Your task to perform on an android device: Search for Mexican restaurants on Maps Image 0: 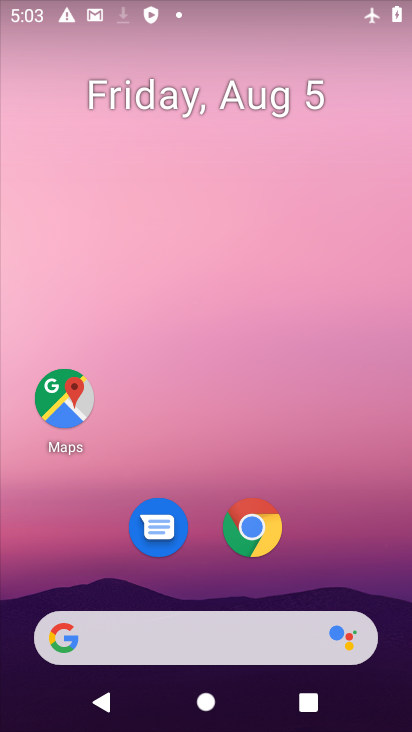
Step 0: drag from (195, 511) to (168, 106)
Your task to perform on an android device: Search for Mexican restaurants on Maps Image 1: 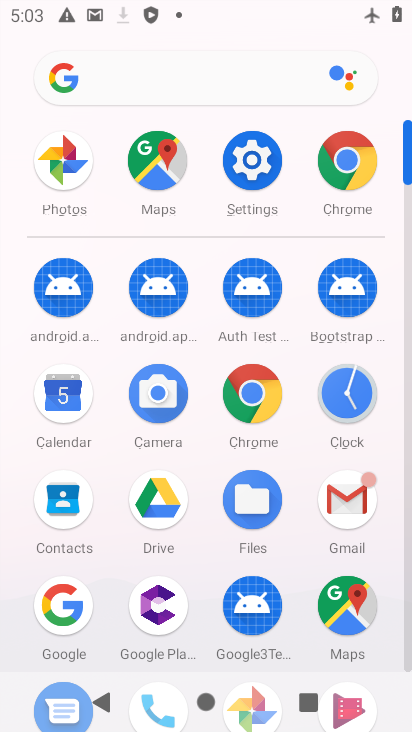
Step 1: drag from (196, 534) to (207, 168)
Your task to perform on an android device: Search for Mexican restaurants on Maps Image 2: 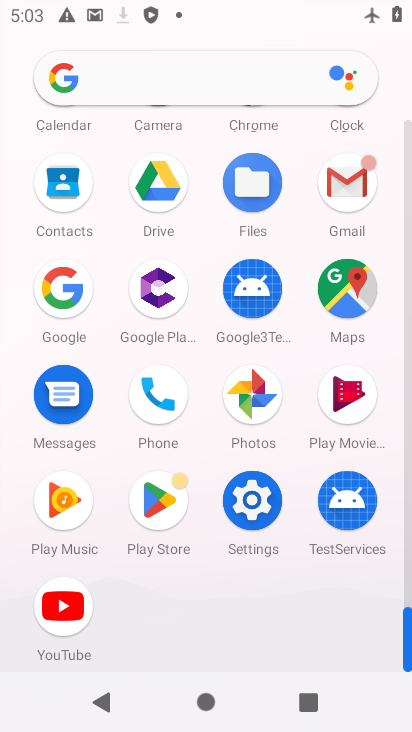
Step 2: click (339, 296)
Your task to perform on an android device: Search for Mexican restaurants on Maps Image 3: 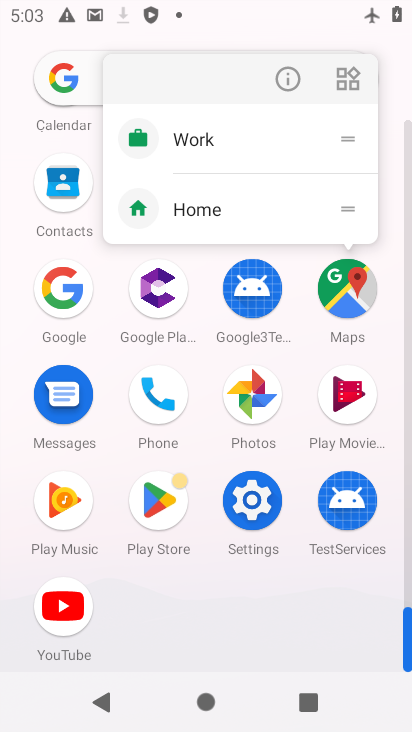
Step 3: click (281, 89)
Your task to perform on an android device: Search for Mexican restaurants on Maps Image 4: 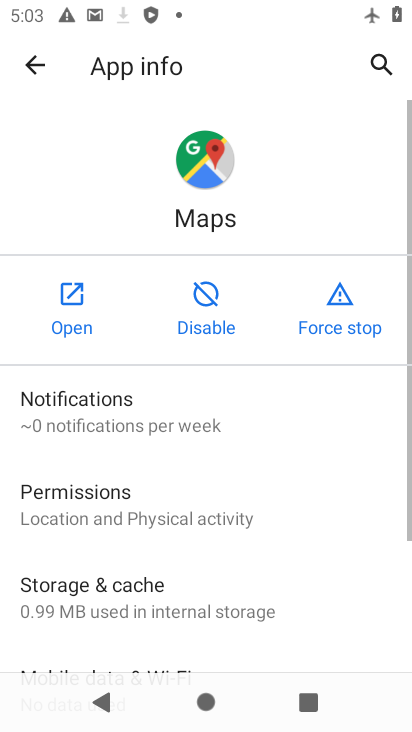
Step 4: click (80, 300)
Your task to perform on an android device: Search for Mexican restaurants on Maps Image 5: 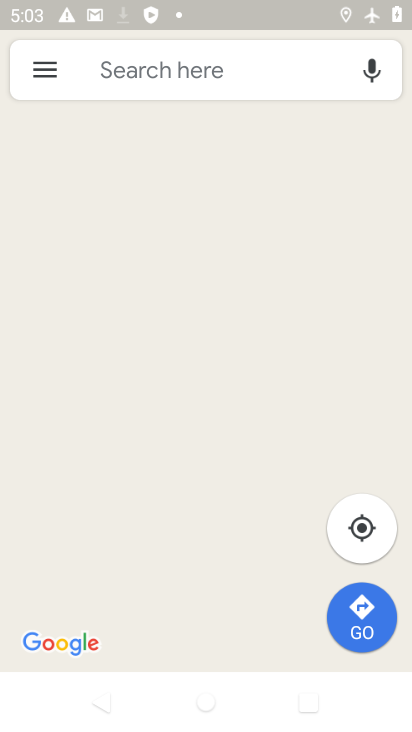
Step 5: drag from (366, 9) to (335, 597)
Your task to perform on an android device: Search for Mexican restaurants on Maps Image 6: 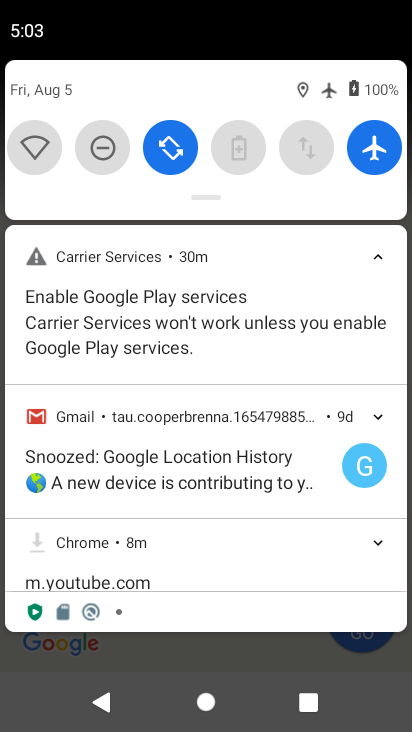
Step 6: click (360, 140)
Your task to perform on an android device: Search for Mexican restaurants on Maps Image 7: 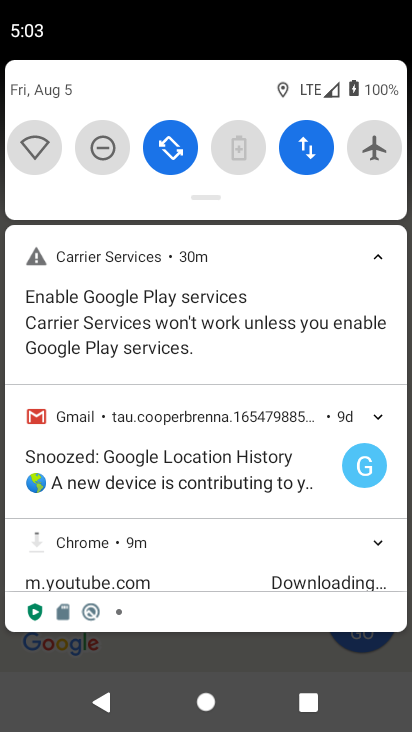
Step 7: press back button
Your task to perform on an android device: Search for Mexican restaurants on Maps Image 8: 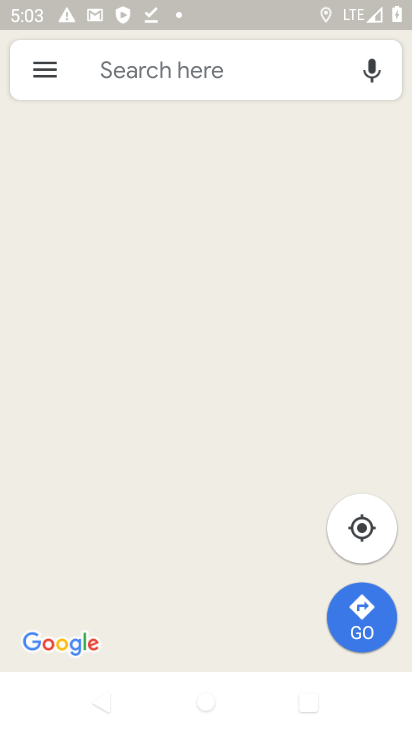
Step 8: click (187, 75)
Your task to perform on an android device: Search for Mexican restaurants on Maps Image 9: 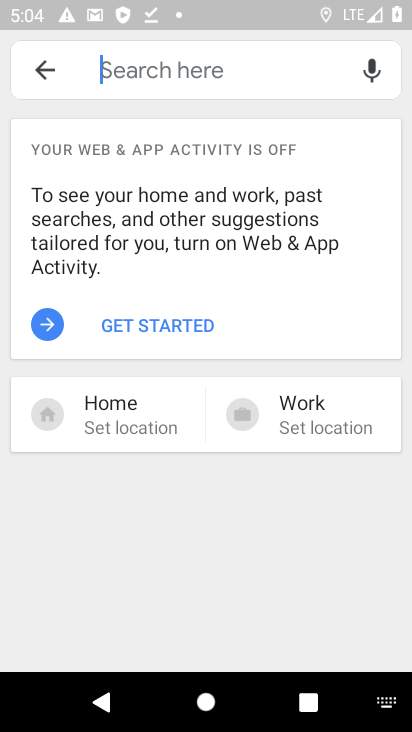
Step 9: type "Mexican restaurants"
Your task to perform on an android device: Search for Mexican restaurants on Maps Image 10: 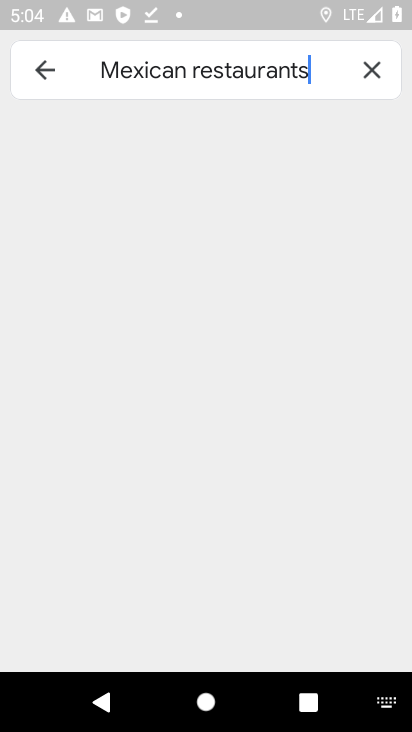
Step 10: type ""
Your task to perform on an android device: Search for Mexican restaurants on Maps Image 11: 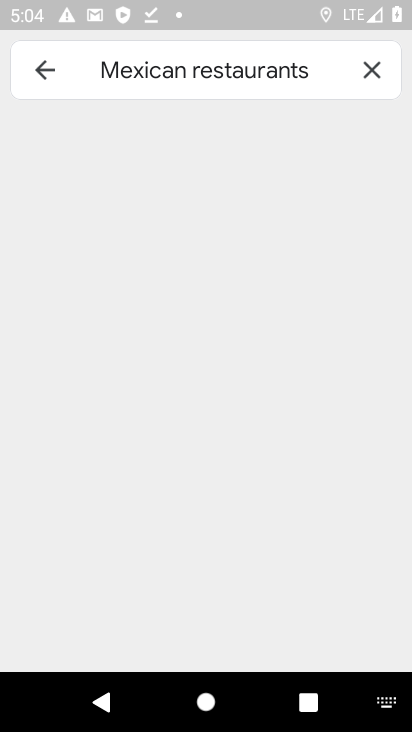
Step 11: click (183, 131)
Your task to perform on an android device: Search for Mexican restaurants on Maps Image 12: 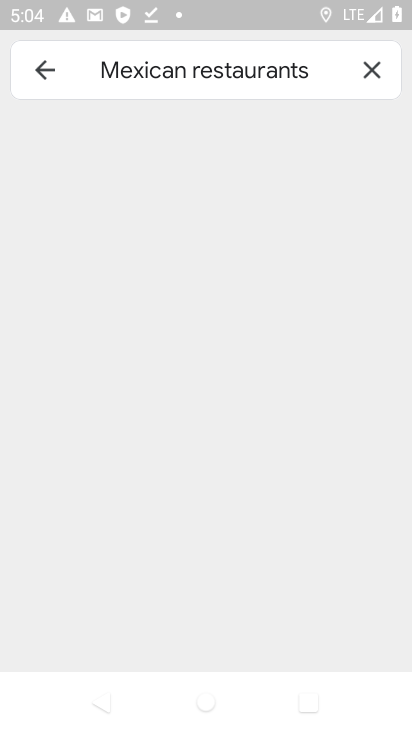
Step 12: click (193, 135)
Your task to perform on an android device: Search for Mexican restaurants on Maps Image 13: 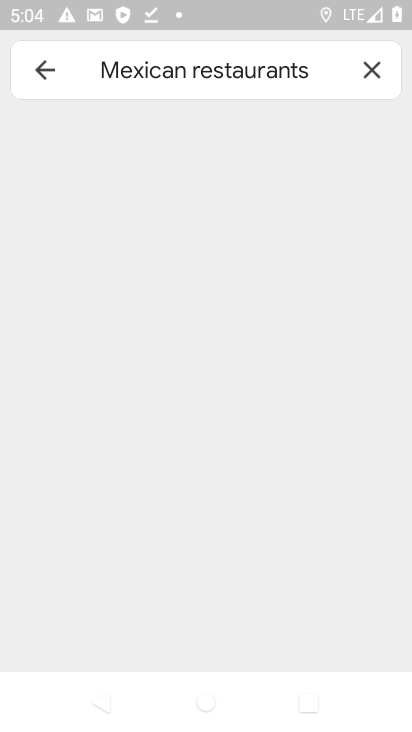
Step 13: click (193, 135)
Your task to perform on an android device: Search for Mexican restaurants on Maps Image 14: 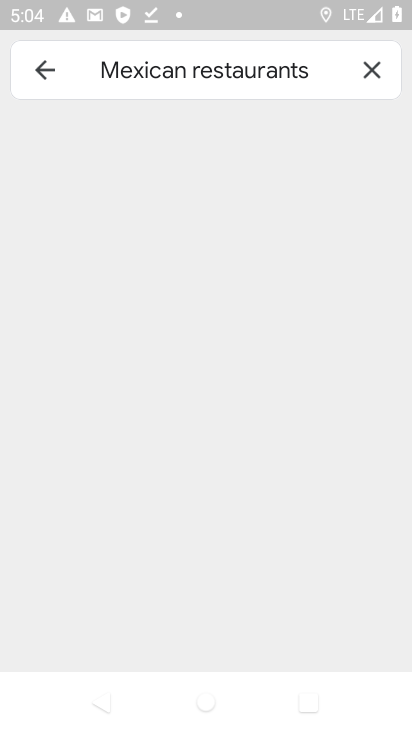
Step 14: click (374, 69)
Your task to perform on an android device: Search for Mexican restaurants on Maps Image 15: 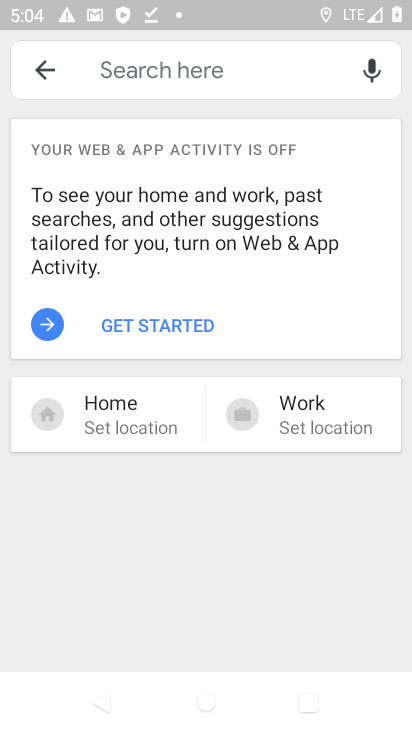
Step 15: click (42, 65)
Your task to perform on an android device: Search for Mexican restaurants on Maps Image 16: 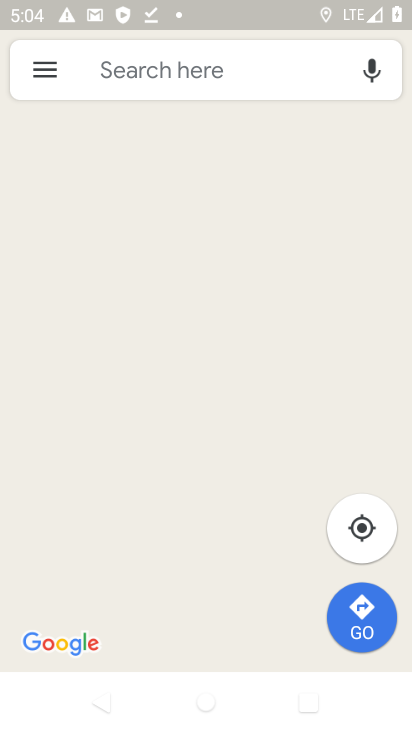
Step 16: click (189, 54)
Your task to perform on an android device: Search for Mexican restaurants on Maps Image 17: 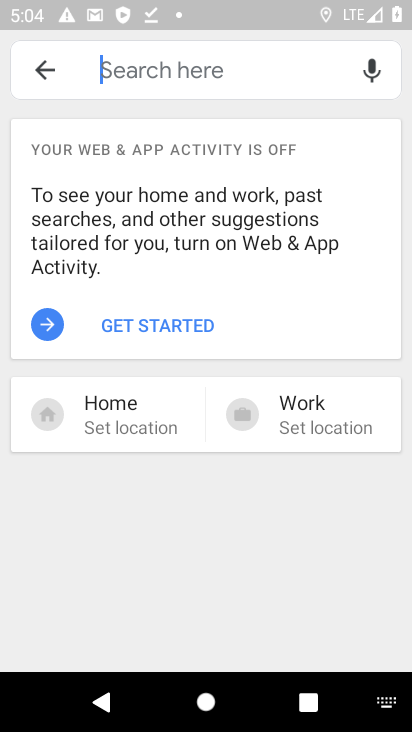
Step 17: click (144, 324)
Your task to perform on an android device: Search for Mexican restaurants on Maps Image 18: 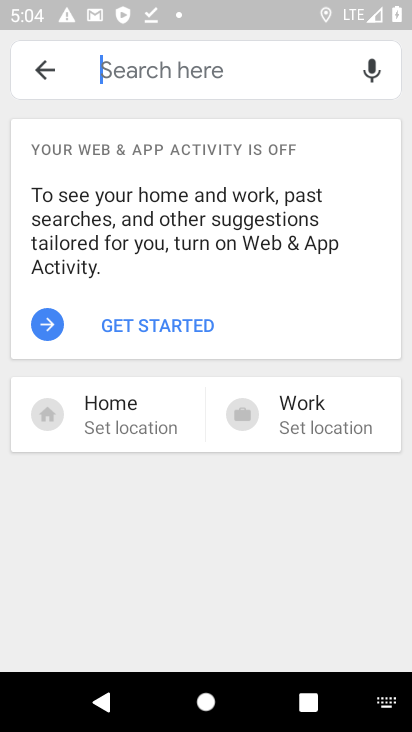
Step 18: click (119, 315)
Your task to perform on an android device: Search for Mexican restaurants on Maps Image 19: 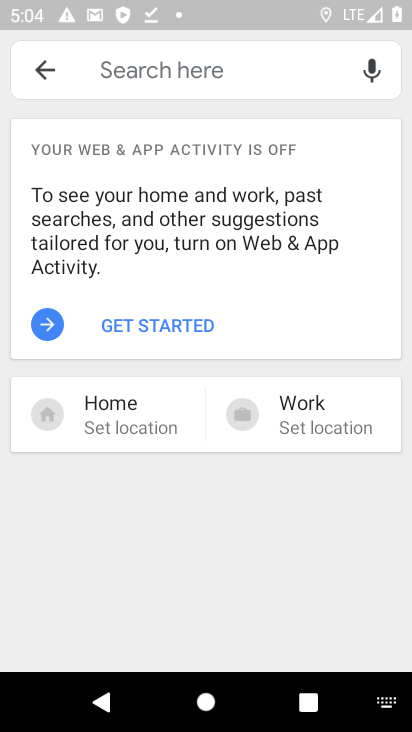
Step 19: type "Mexican restaurants"
Your task to perform on an android device: Search for Mexican restaurants on Maps Image 20: 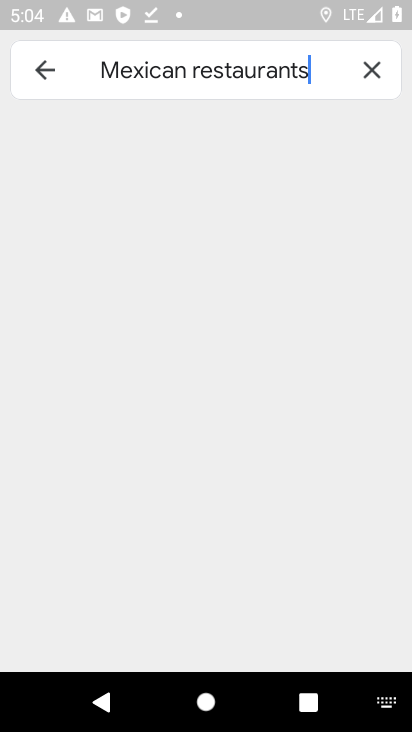
Step 20: type ""
Your task to perform on an android device: Search for Mexican restaurants on Maps Image 21: 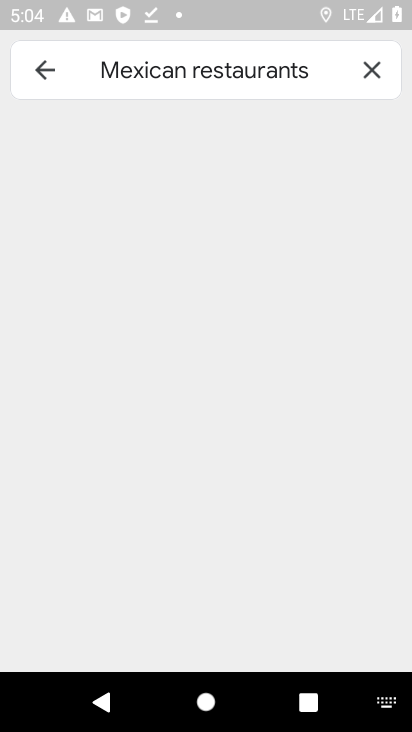
Step 21: drag from (203, 162) to (305, 473)
Your task to perform on an android device: Search for Mexican restaurants on Maps Image 22: 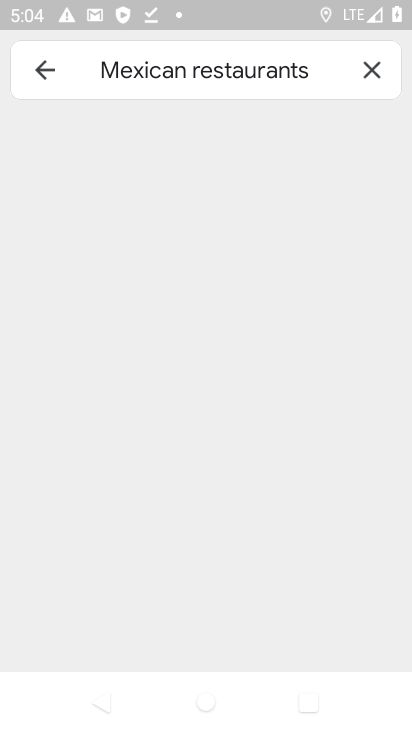
Step 22: click (212, 183)
Your task to perform on an android device: Search for Mexican restaurants on Maps Image 23: 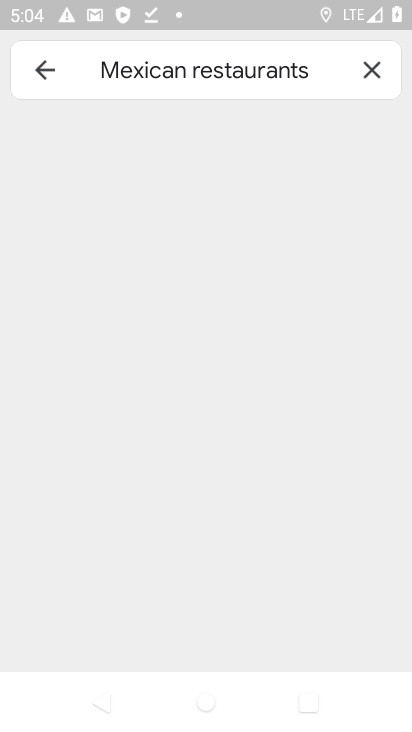
Step 23: click (212, 179)
Your task to perform on an android device: Search for Mexican restaurants on Maps Image 24: 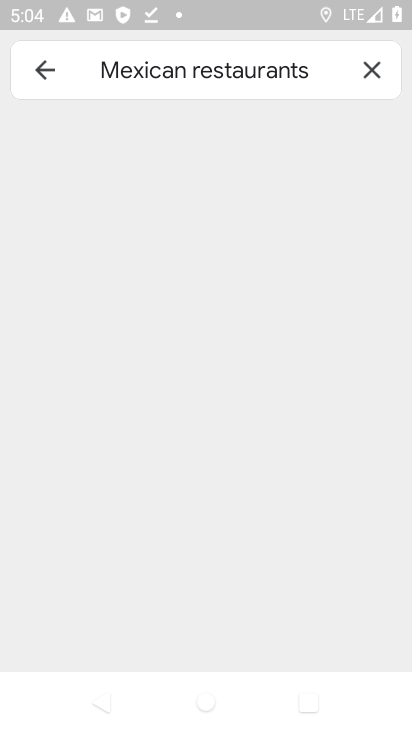
Step 24: click (203, 162)
Your task to perform on an android device: Search for Mexican restaurants on Maps Image 25: 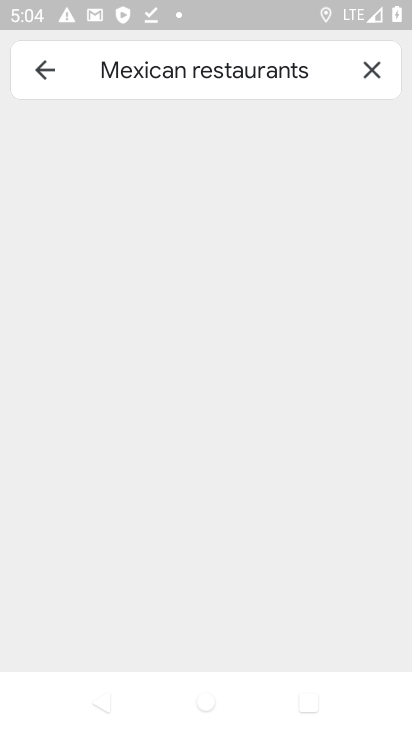
Step 25: click (221, 193)
Your task to perform on an android device: Search for Mexican restaurants on Maps Image 26: 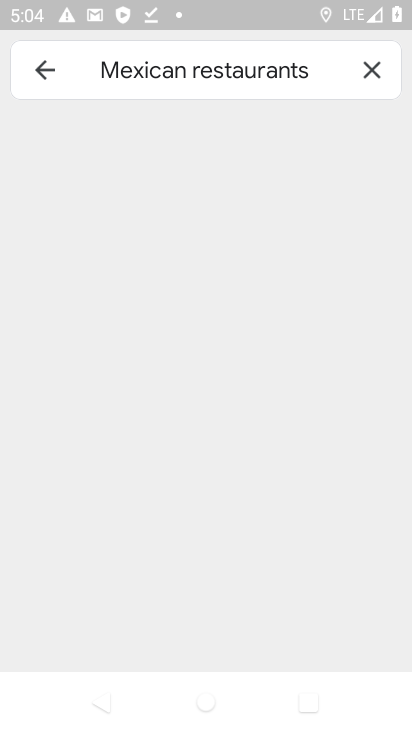
Step 26: click (237, 137)
Your task to perform on an android device: Search for Mexican restaurants on Maps Image 27: 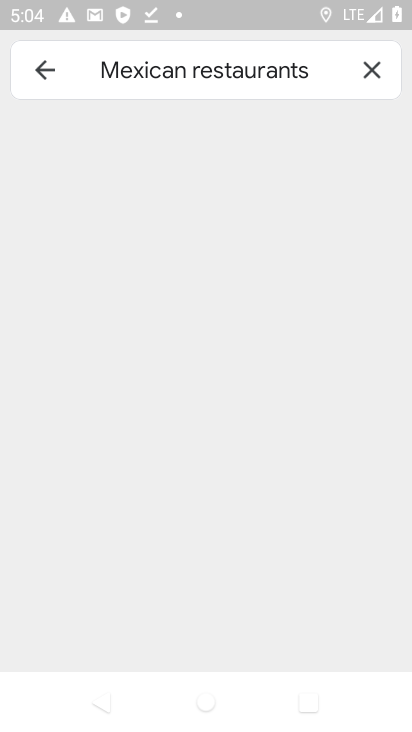
Step 27: click (236, 136)
Your task to perform on an android device: Search for Mexican restaurants on Maps Image 28: 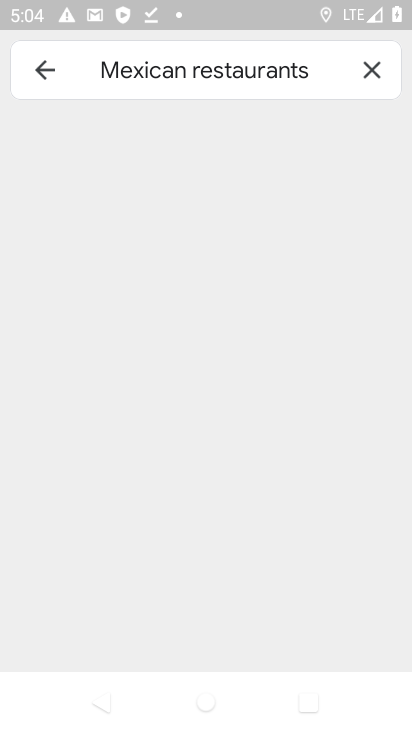
Step 28: click (235, 135)
Your task to perform on an android device: Search for Mexican restaurants on Maps Image 29: 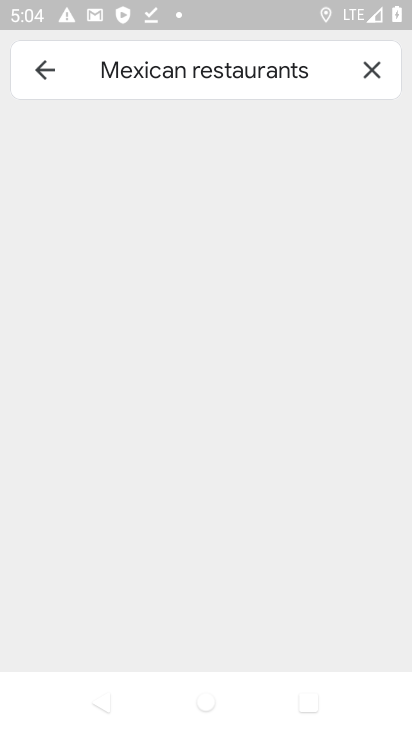
Step 29: click (234, 138)
Your task to perform on an android device: Search for Mexican restaurants on Maps Image 30: 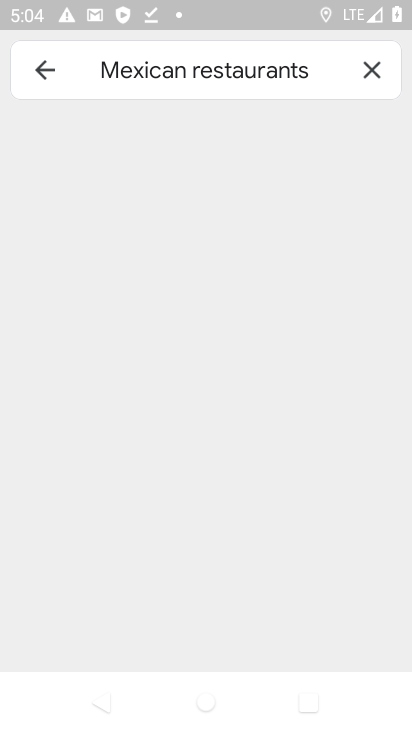
Step 30: click (233, 169)
Your task to perform on an android device: Search for Mexican restaurants on Maps Image 31: 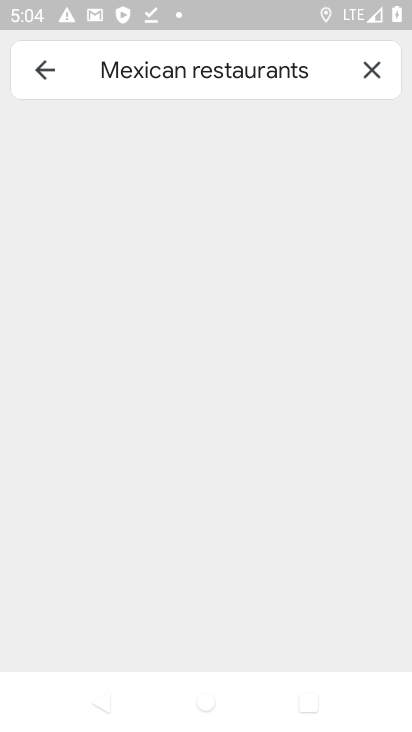
Step 31: click (232, 171)
Your task to perform on an android device: Search for Mexican restaurants on Maps Image 32: 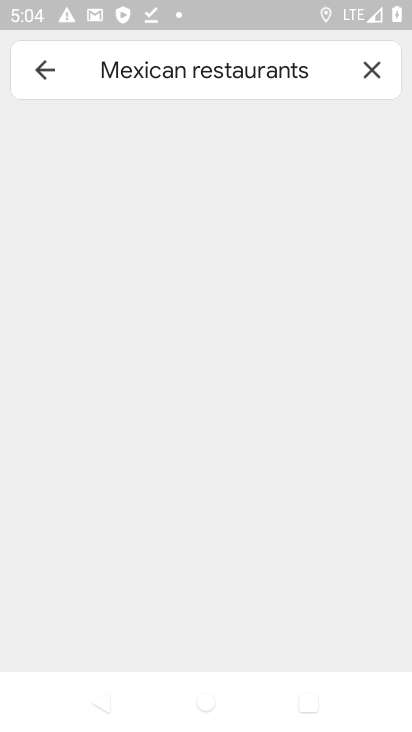
Step 32: drag from (171, 139) to (274, 348)
Your task to perform on an android device: Search for Mexican restaurants on Maps Image 33: 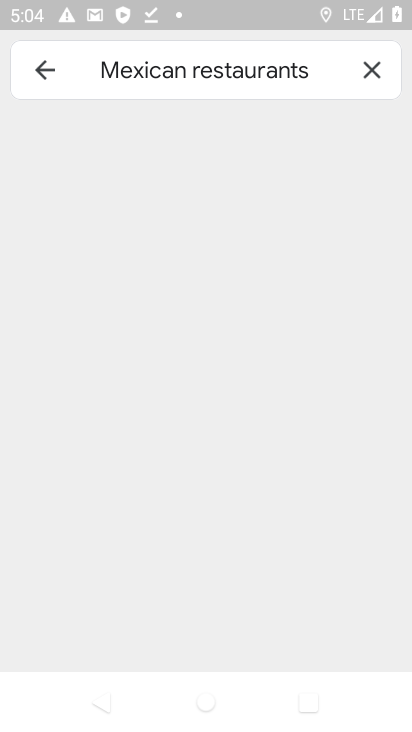
Step 33: drag from (209, 120) to (248, 450)
Your task to perform on an android device: Search for Mexican restaurants on Maps Image 34: 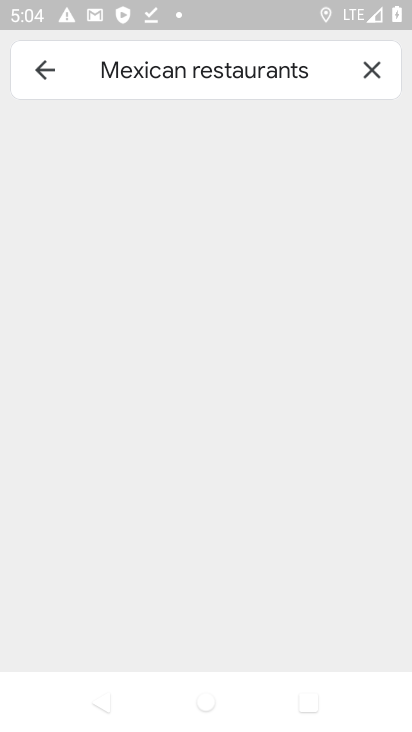
Step 34: click (153, 212)
Your task to perform on an android device: Search for Mexican restaurants on Maps Image 35: 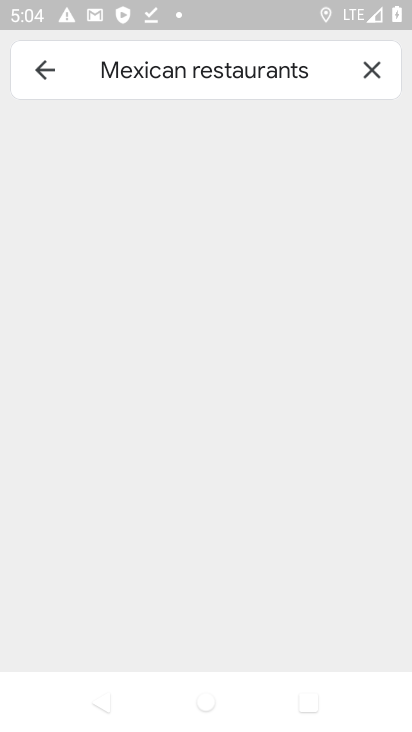
Step 35: click (156, 208)
Your task to perform on an android device: Search for Mexican restaurants on Maps Image 36: 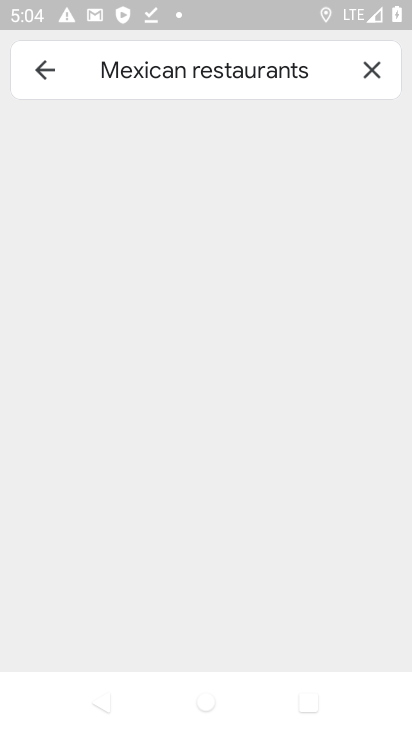
Step 36: task complete